Your task to perform on an android device: Open location settings Image 0: 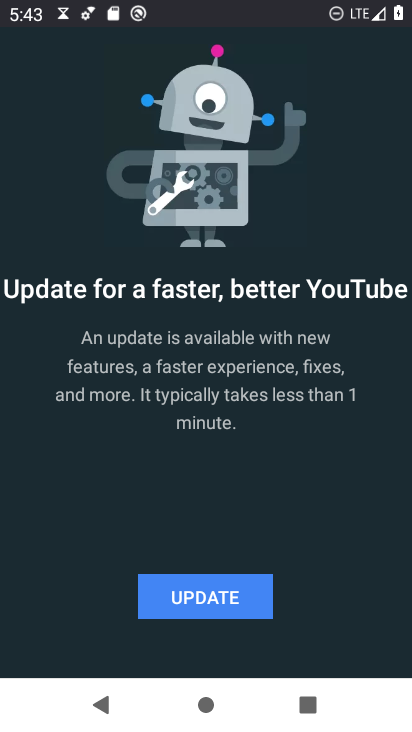
Step 0: press back button
Your task to perform on an android device: Open location settings Image 1: 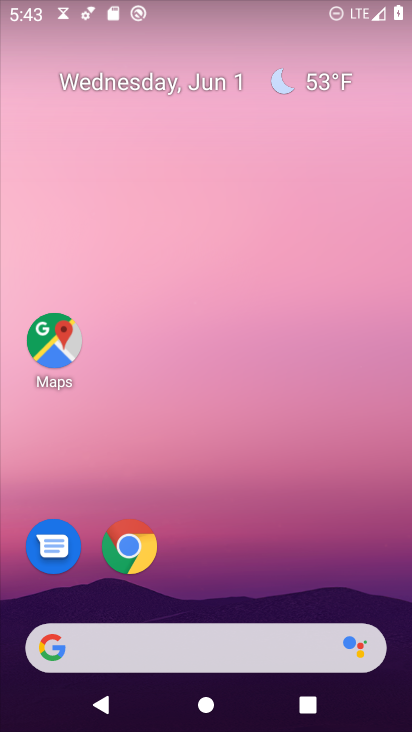
Step 1: drag from (216, 599) to (225, 7)
Your task to perform on an android device: Open location settings Image 2: 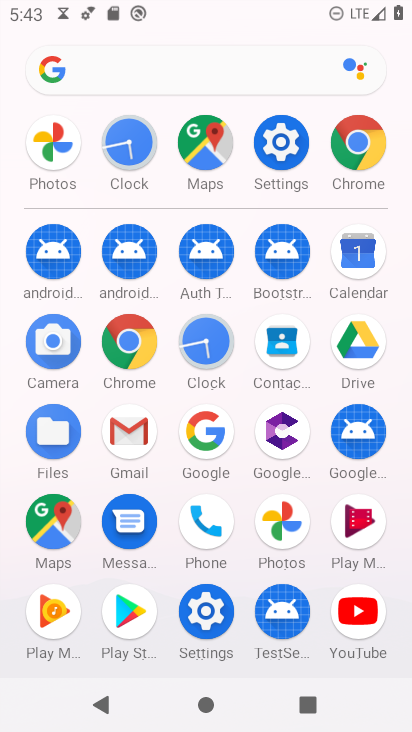
Step 2: click (206, 610)
Your task to perform on an android device: Open location settings Image 3: 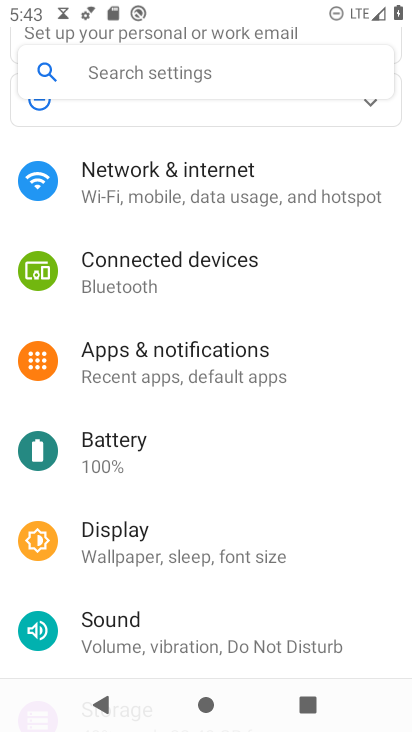
Step 3: drag from (272, 530) to (248, 141)
Your task to perform on an android device: Open location settings Image 4: 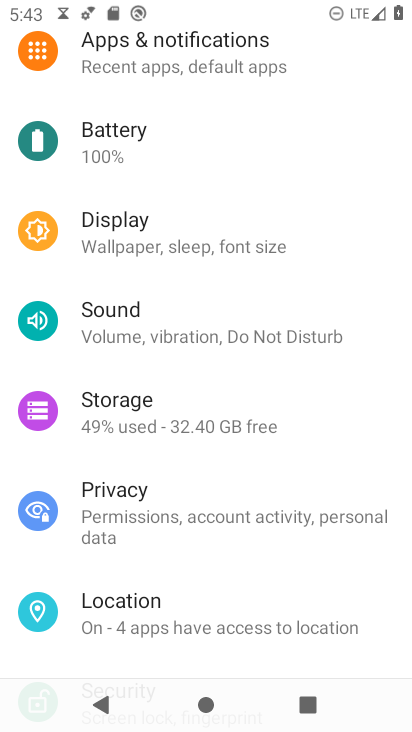
Step 4: click (155, 623)
Your task to perform on an android device: Open location settings Image 5: 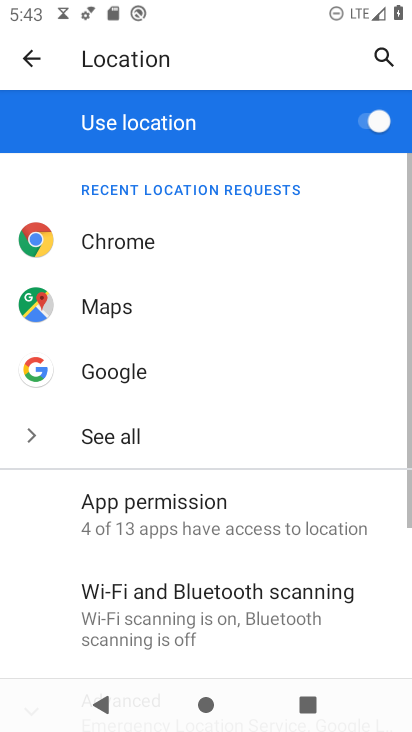
Step 5: drag from (277, 601) to (272, 238)
Your task to perform on an android device: Open location settings Image 6: 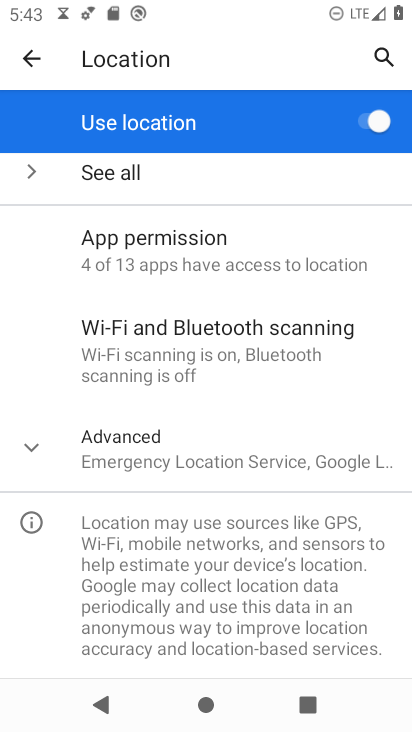
Step 6: click (31, 443)
Your task to perform on an android device: Open location settings Image 7: 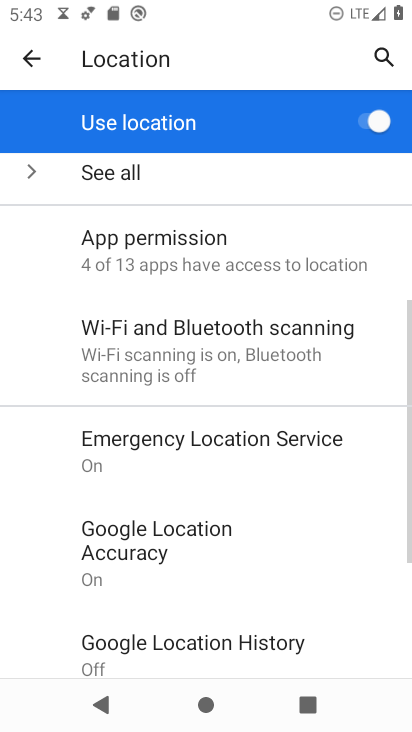
Step 7: task complete